Your task to perform on an android device: toggle notification dots Image 0: 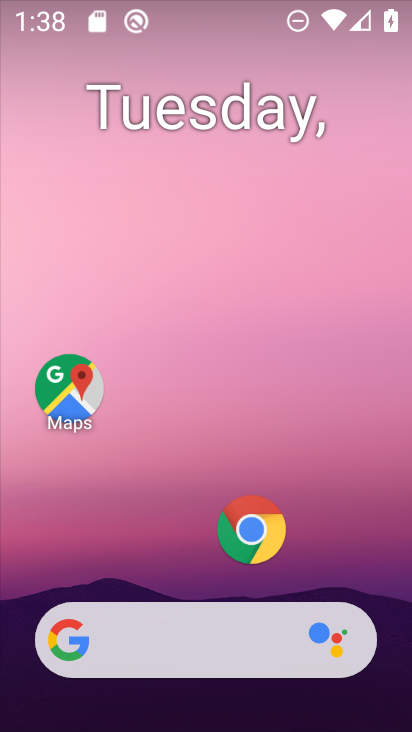
Step 0: press home button
Your task to perform on an android device: toggle notification dots Image 1: 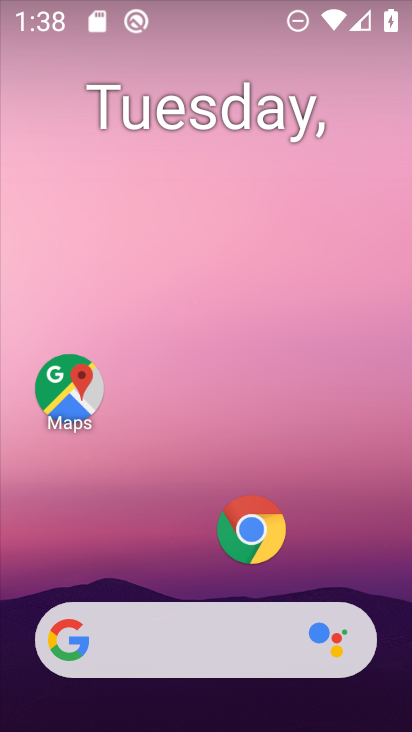
Step 1: drag from (187, 698) to (343, 212)
Your task to perform on an android device: toggle notification dots Image 2: 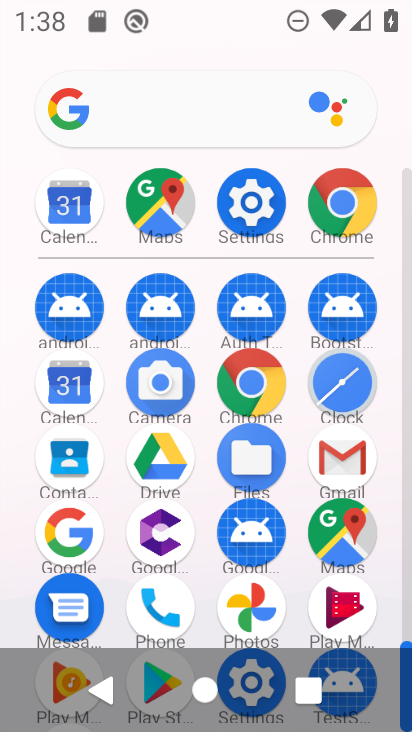
Step 2: click (250, 198)
Your task to perform on an android device: toggle notification dots Image 3: 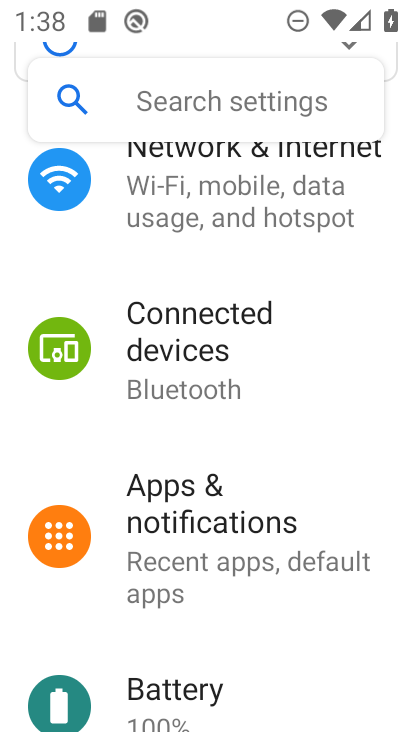
Step 3: click (208, 111)
Your task to perform on an android device: toggle notification dots Image 4: 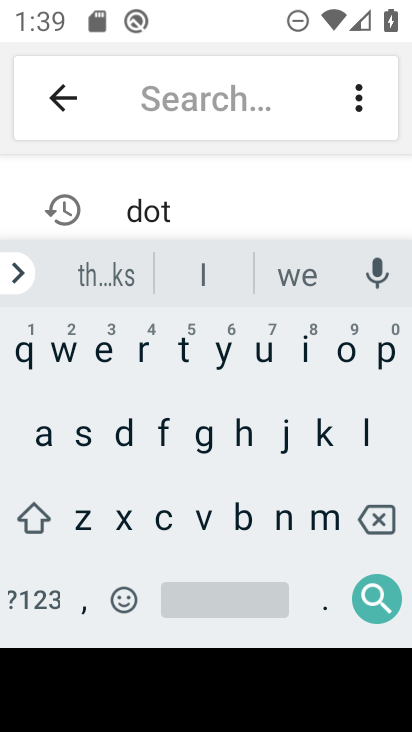
Step 4: click (166, 208)
Your task to perform on an android device: toggle notification dots Image 5: 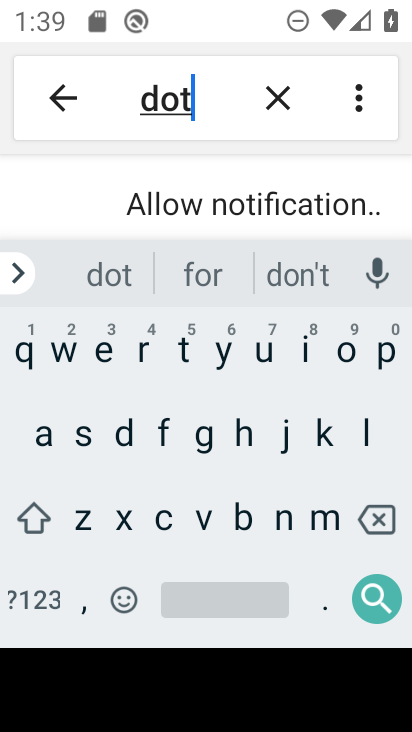
Step 5: click (205, 206)
Your task to perform on an android device: toggle notification dots Image 6: 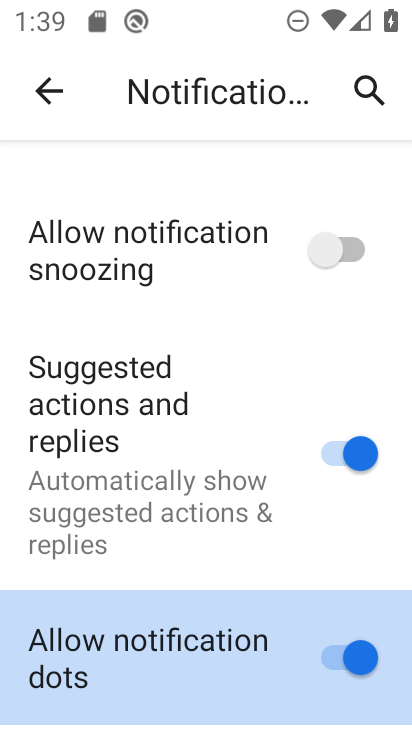
Step 6: task complete